Your task to perform on an android device: Go to eBay Image 0: 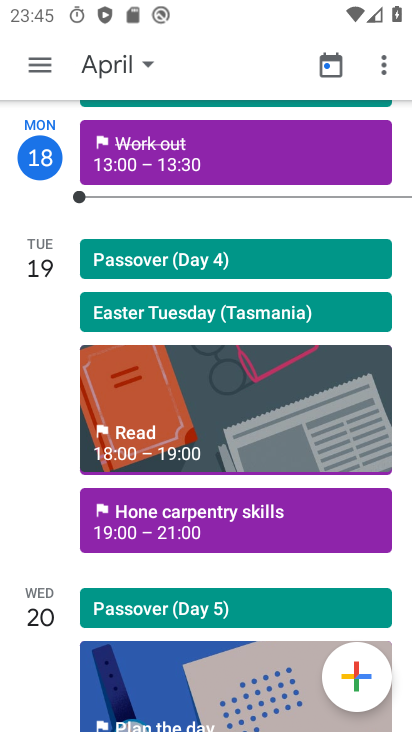
Step 0: press home button
Your task to perform on an android device: Go to eBay Image 1: 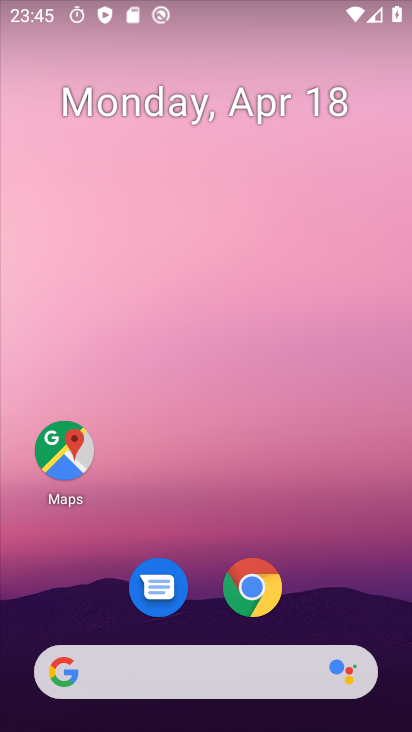
Step 1: click (257, 587)
Your task to perform on an android device: Go to eBay Image 2: 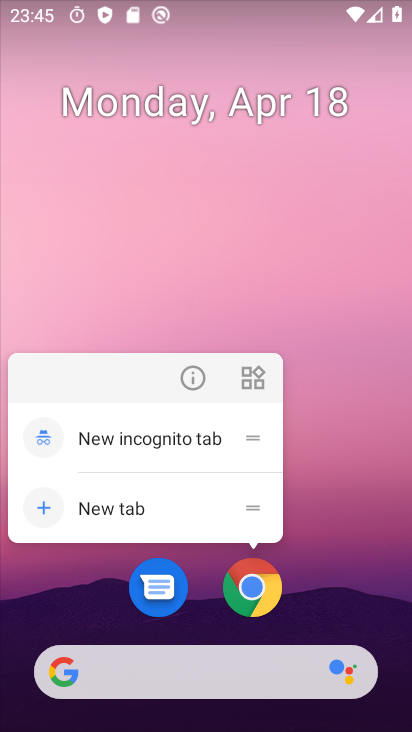
Step 2: click (277, 598)
Your task to perform on an android device: Go to eBay Image 3: 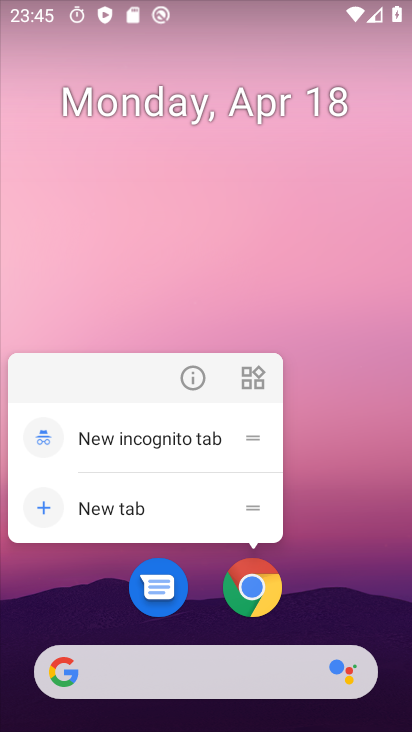
Step 3: click (264, 596)
Your task to perform on an android device: Go to eBay Image 4: 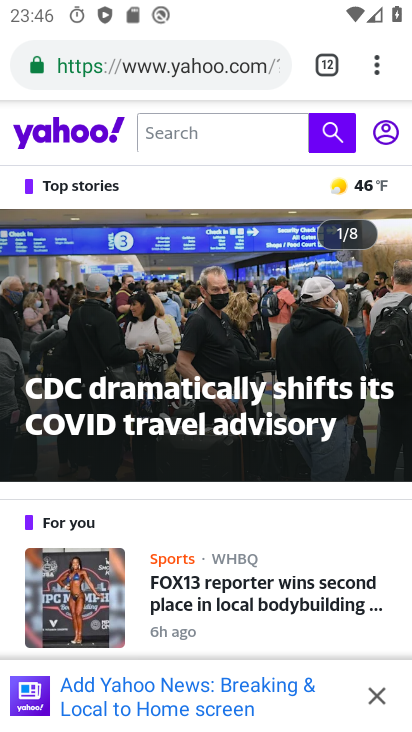
Step 4: click (322, 66)
Your task to perform on an android device: Go to eBay Image 5: 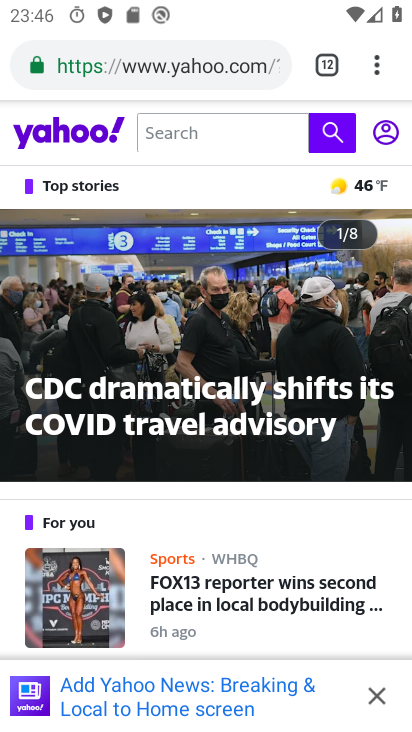
Step 5: click (240, 103)
Your task to perform on an android device: Go to eBay Image 6: 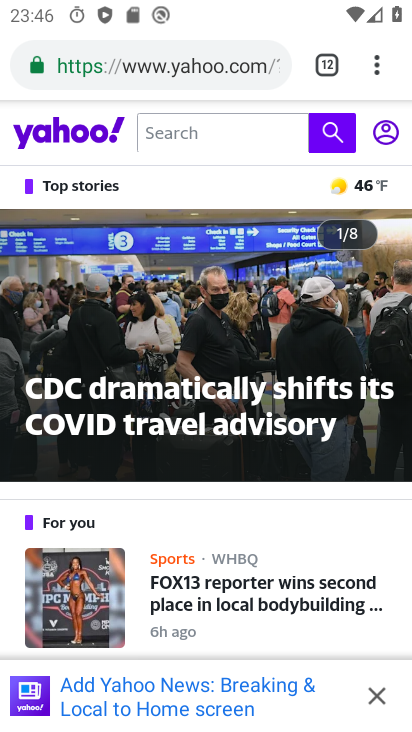
Step 6: click (374, 71)
Your task to perform on an android device: Go to eBay Image 7: 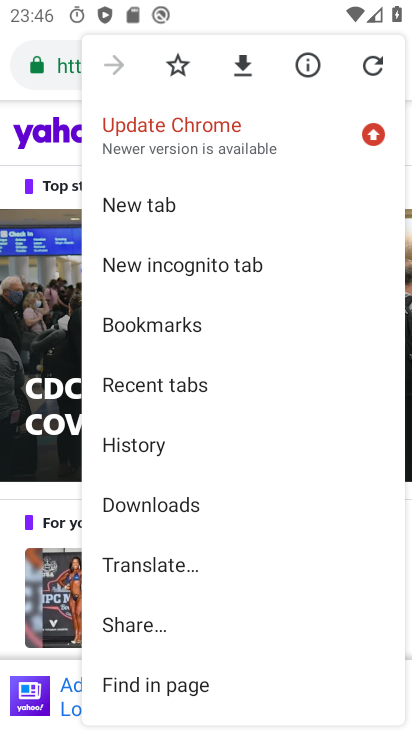
Step 7: click (134, 206)
Your task to perform on an android device: Go to eBay Image 8: 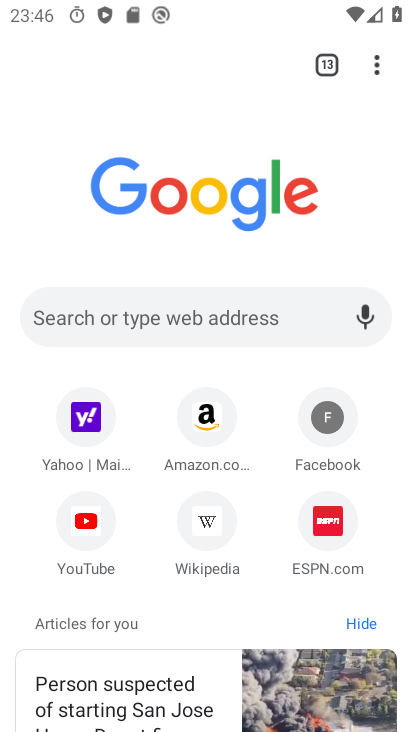
Step 8: click (108, 310)
Your task to perform on an android device: Go to eBay Image 9: 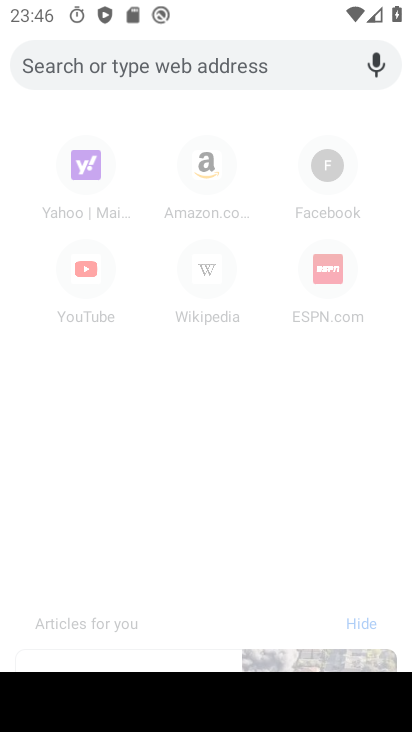
Step 9: type "ebay"
Your task to perform on an android device: Go to eBay Image 10: 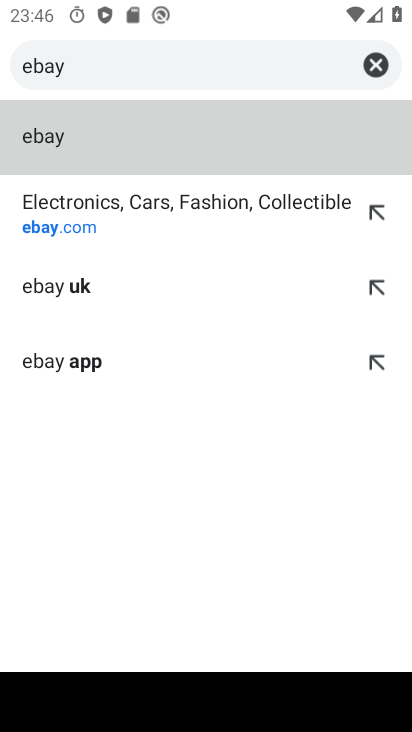
Step 10: click (47, 168)
Your task to perform on an android device: Go to eBay Image 11: 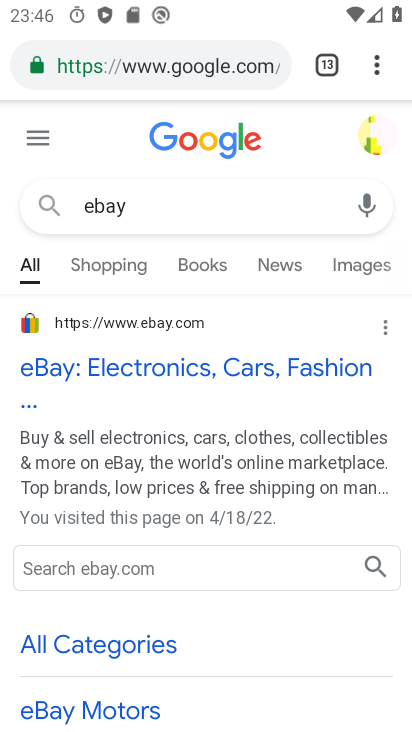
Step 11: click (80, 364)
Your task to perform on an android device: Go to eBay Image 12: 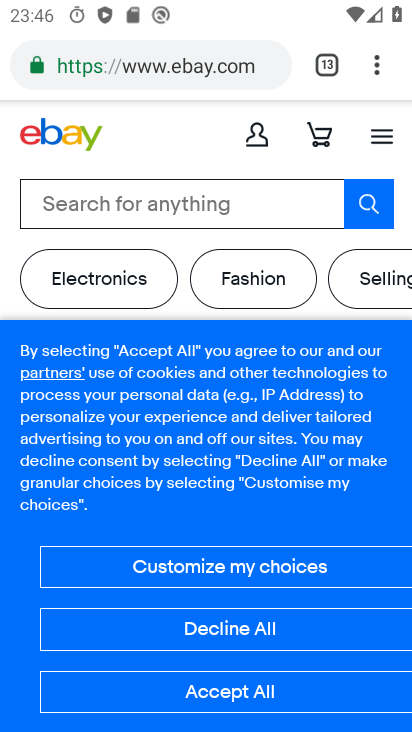
Step 12: task complete